Your task to perform on an android device: check data usage Image 0: 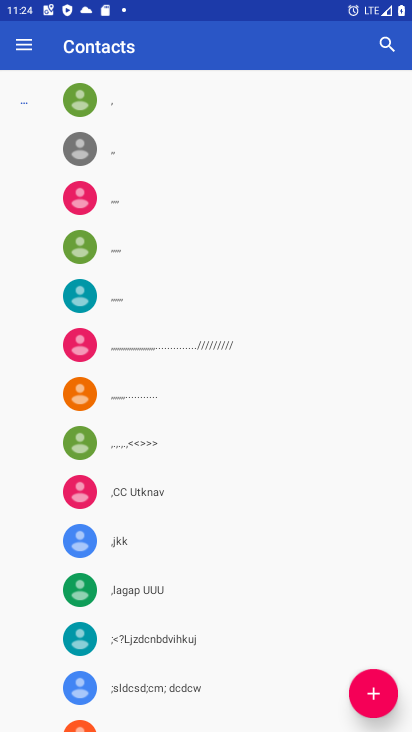
Step 0: press home button
Your task to perform on an android device: check data usage Image 1: 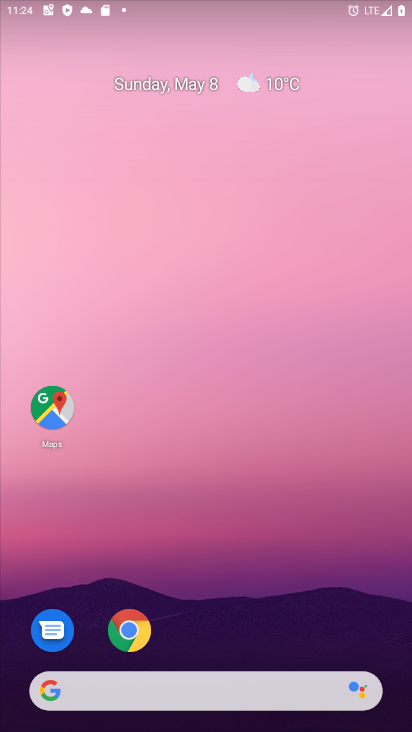
Step 1: drag from (382, 628) to (338, 47)
Your task to perform on an android device: check data usage Image 2: 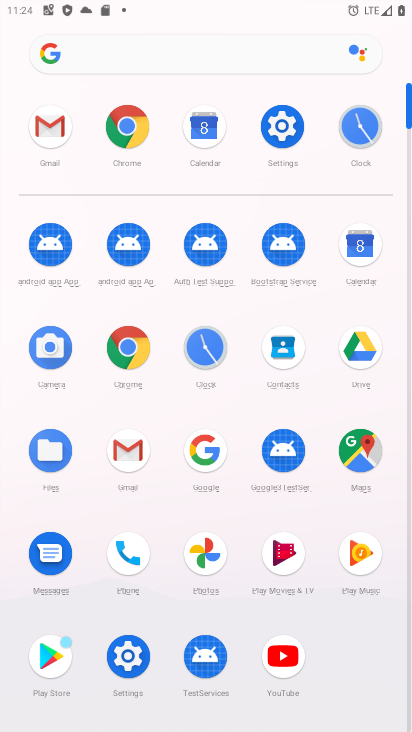
Step 2: click (137, 659)
Your task to perform on an android device: check data usage Image 3: 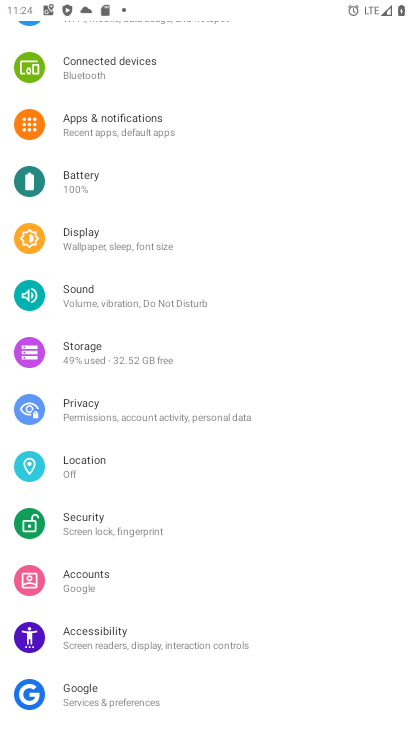
Step 3: drag from (171, 59) to (166, 590)
Your task to perform on an android device: check data usage Image 4: 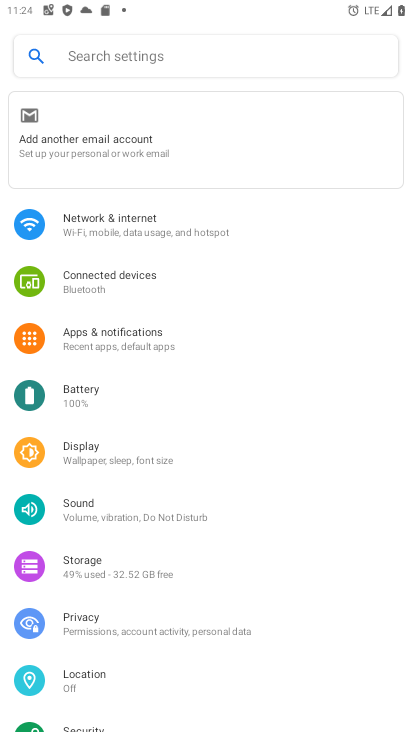
Step 4: click (113, 234)
Your task to perform on an android device: check data usage Image 5: 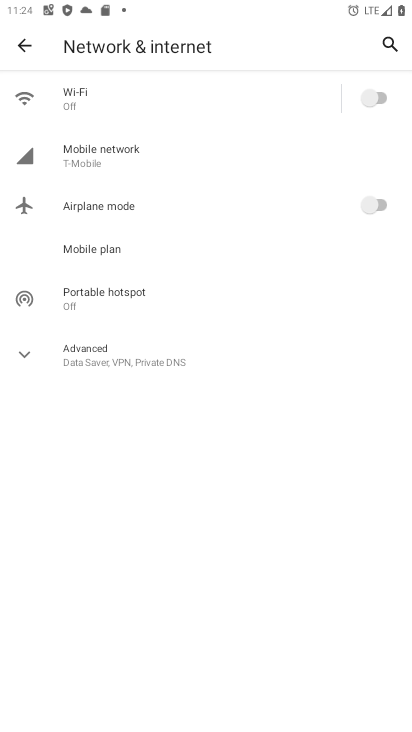
Step 5: click (124, 155)
Your task to perform on an android device: check data usage Image 6: 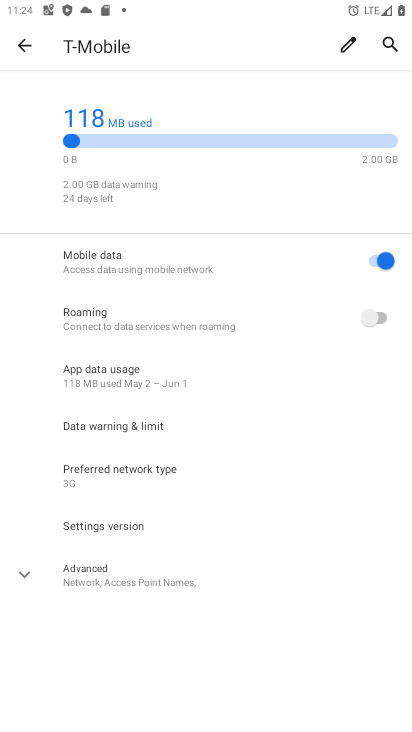
Step 6: click (167, 382)
Your task to perform on an android device: check data usage Image 7: 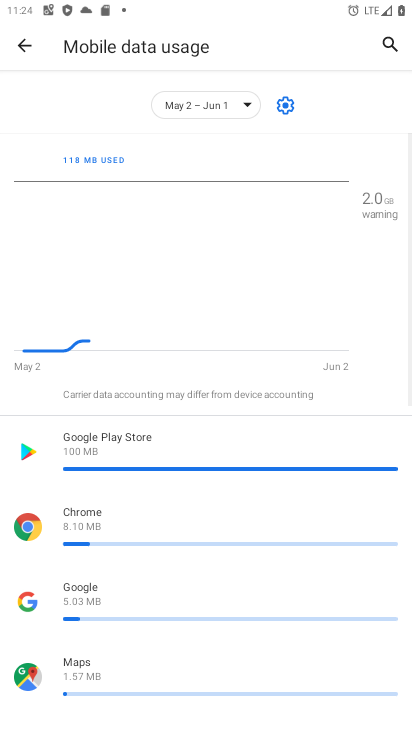
Step 7: task complete